Your task to perform on an android device: View the shopping cart on newegg. Add "beats solo 3" to the cart on newegg Image 0: 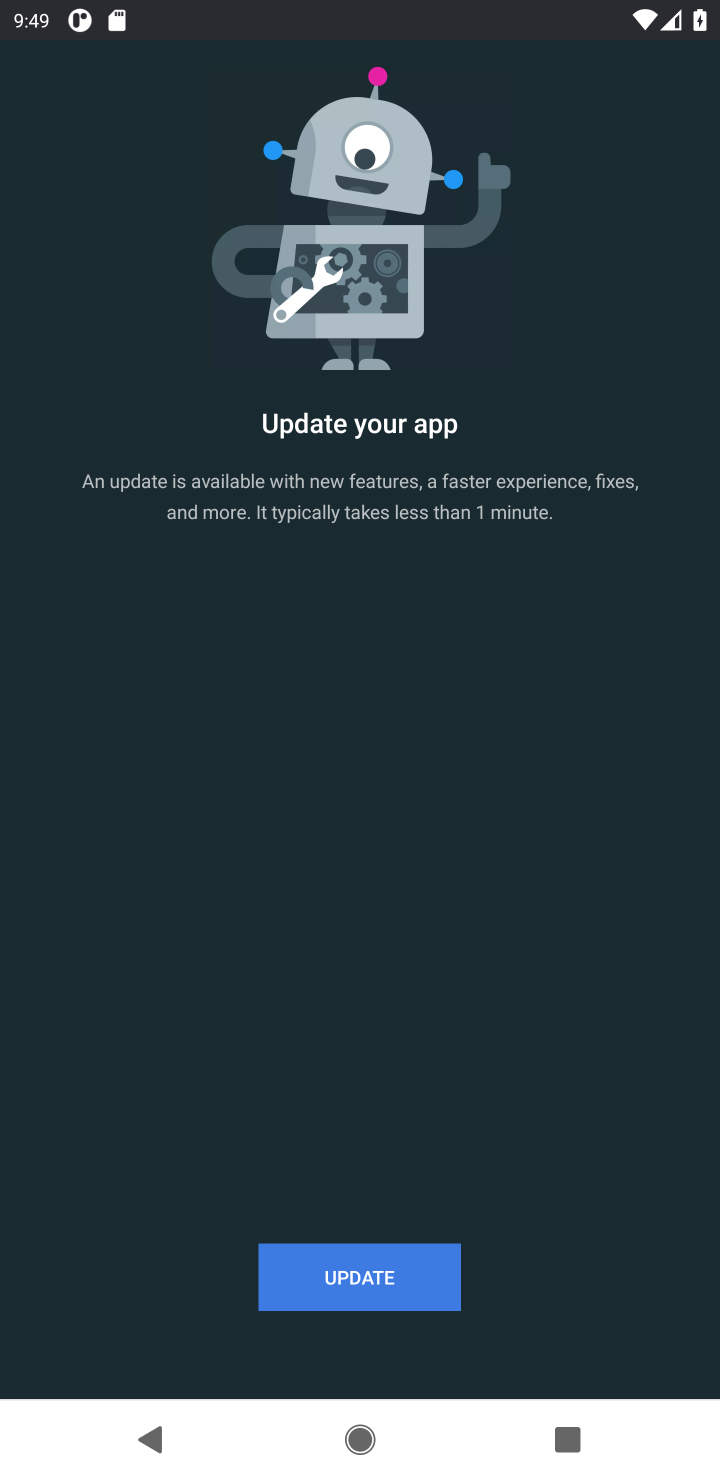
Step 0: press home button
Your task to perform on an android device: View the shopping cart on newegg. Add "beats solo 3" to the cart on newegg Image 1: 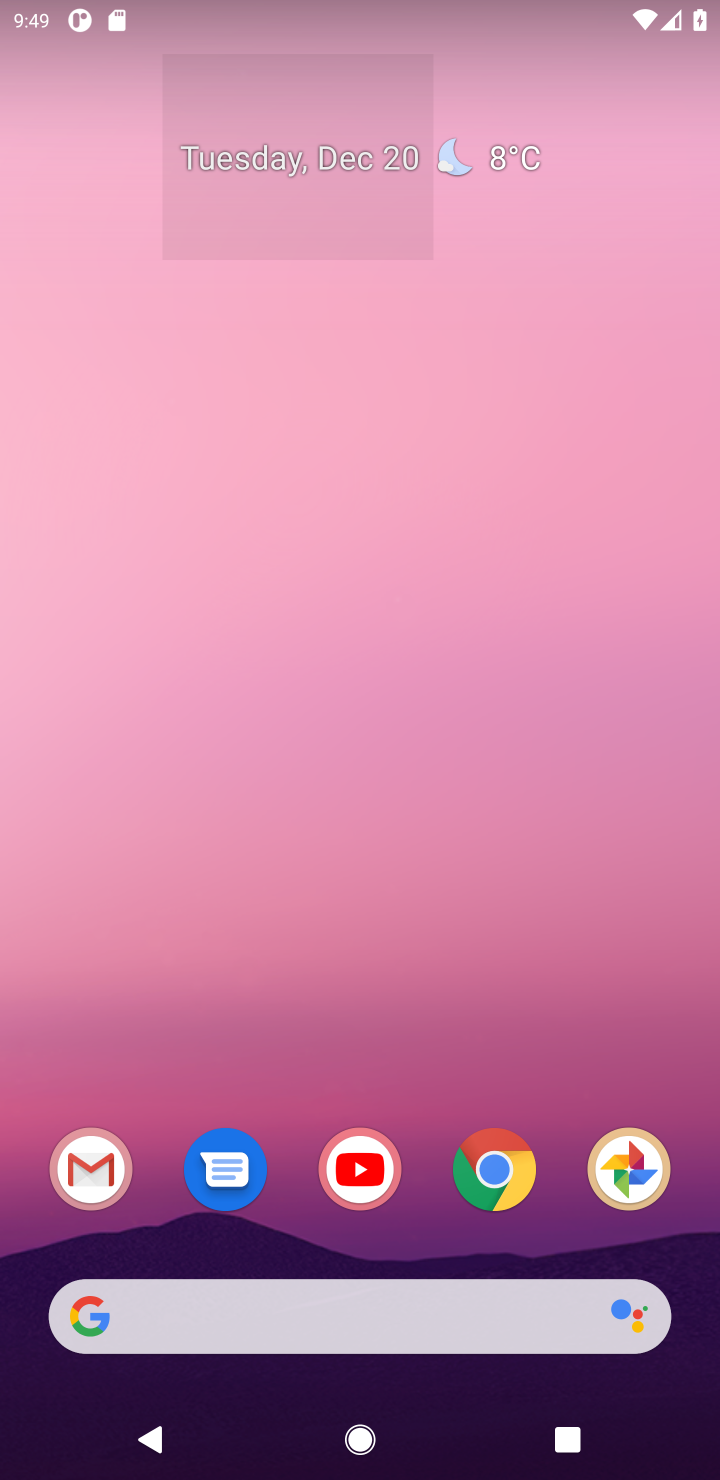
Step 1: click (475, 1174)
Your task to perform on an android device: View the shopping cart on newegg. Add "beats solo 3" to the cart on newegg Image 2: 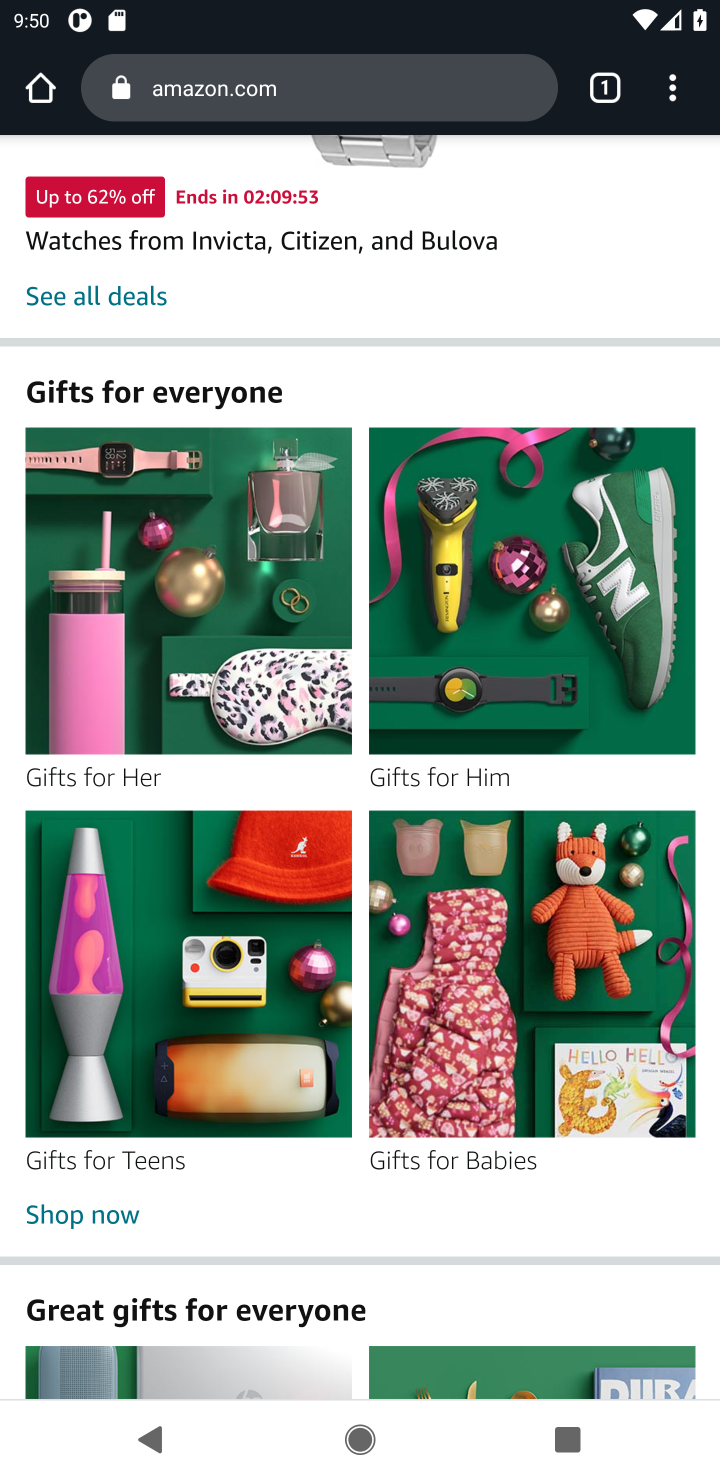
Step 2: click (359, 92)
Your task to perform on an android device: View the shopping cart on newegg. Add "beats solo 3" to the cart on newegg Image 3: 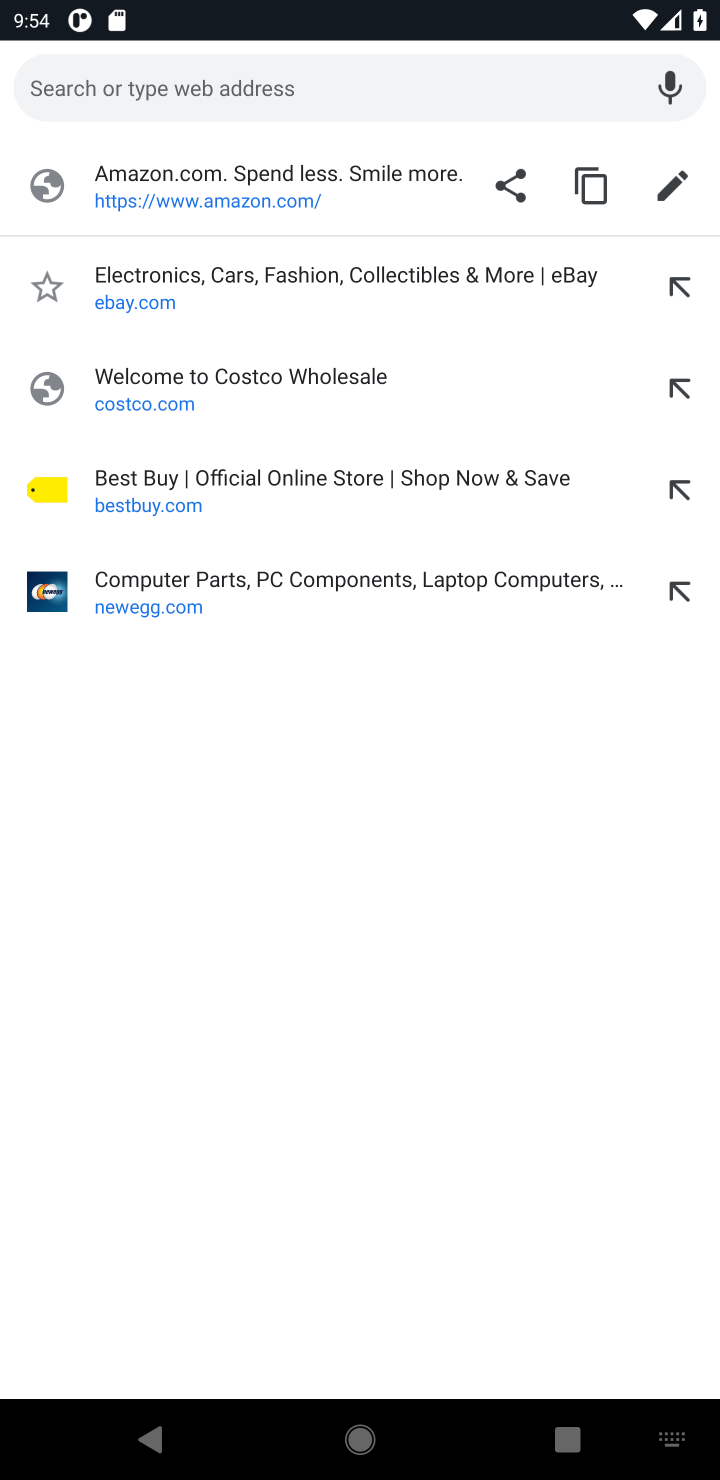
Step 3: task complete